Your task to perform on an android device: Open the Play Movies app and select the watchlist tab. Image 0: 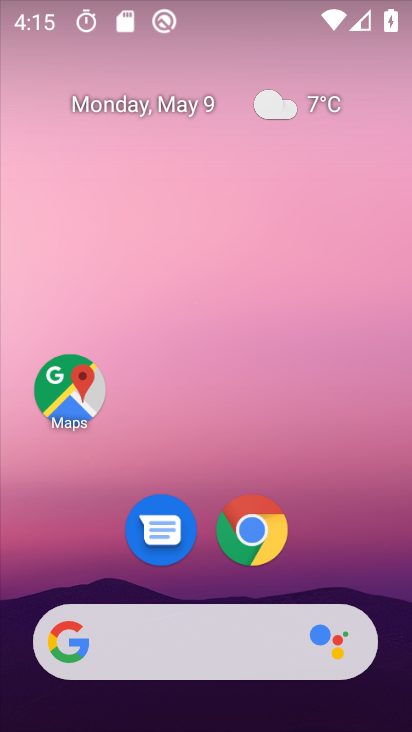
Step 0: drag from (252, 610) to (307, 195)
Your task to perform on an android device: Open the Play Movies app and select the watchlist tab. Image 1: 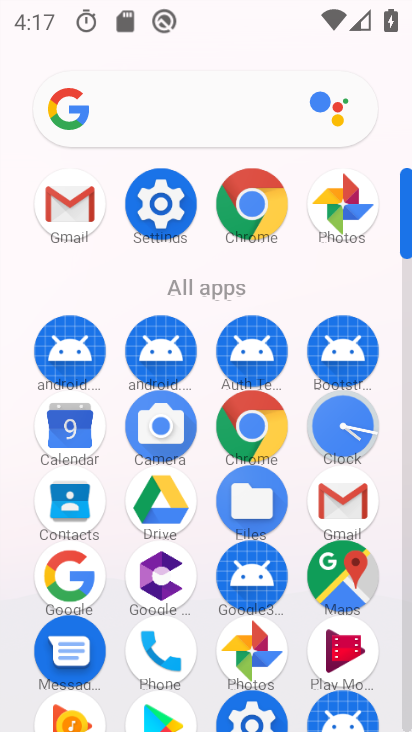
Step 1: click (331, 656)
Your task to perform on an android device: Open the Play Movies app and select the watchlist tab. Image 2: 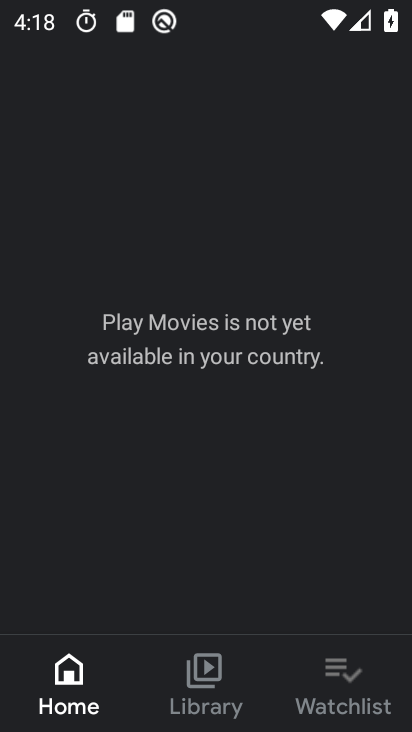
Step 2: click (328, 686)
Your task to perform on an android device: Open the Play Movies app and select the watchlist tab. Image 3: 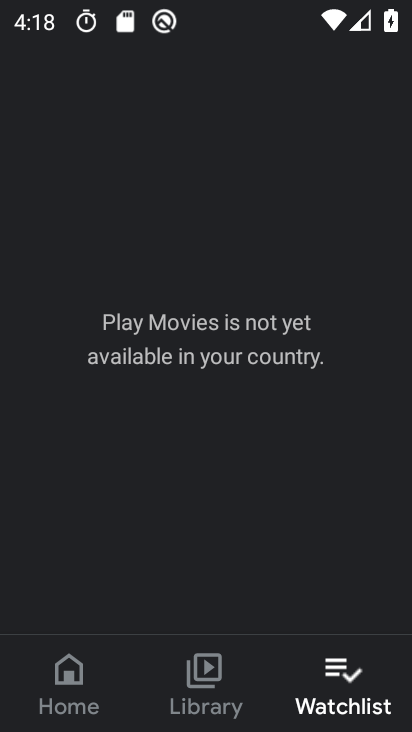
Step 3: task complete